Your task to perform on an android device: See recent photos Image 0: 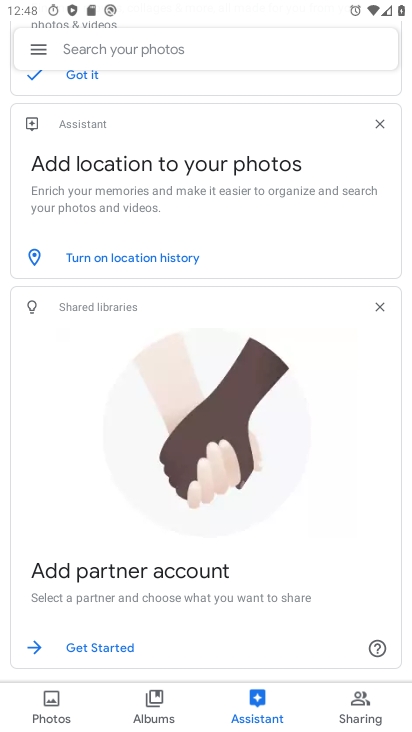
Step 0: press home button
Your task to perform on an android device: See recent photos Image 1: 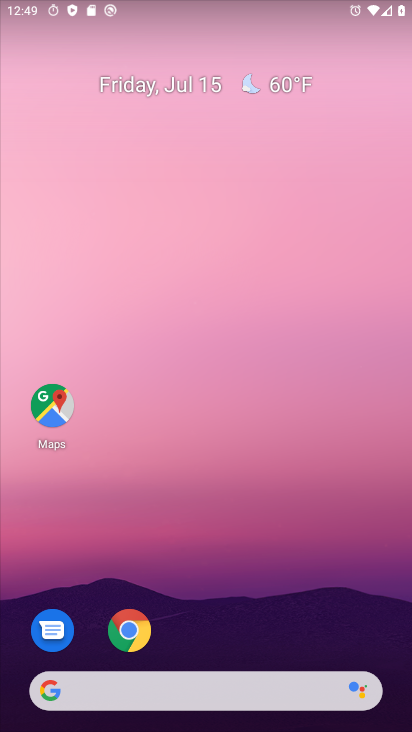
Step 1: drag from (202, 616) to (202, 208)
Your task to perform on an android device: See recent photos Image 2: 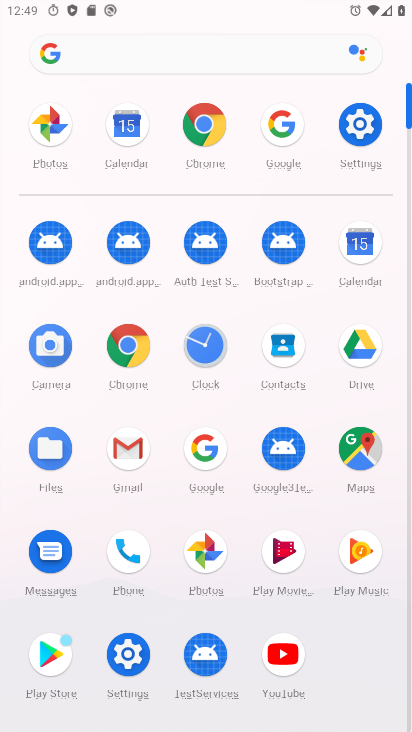
Step 2: click (203, 588)
Your task to perform on an android device: See recent photos Image 3: 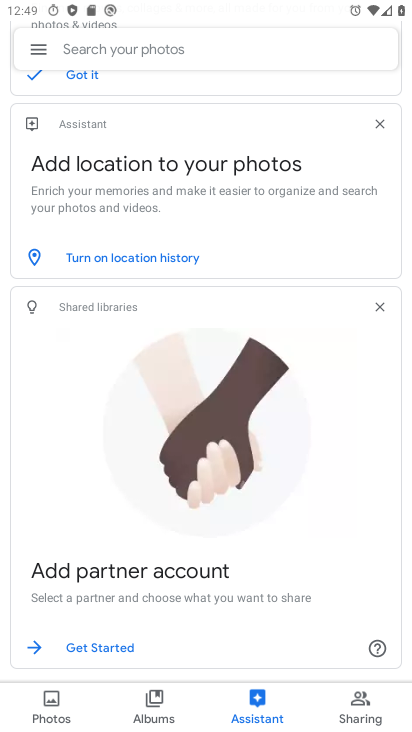
Step 3: click (48, 709)
Your task to perform on an android device: See recent photos Image 4: 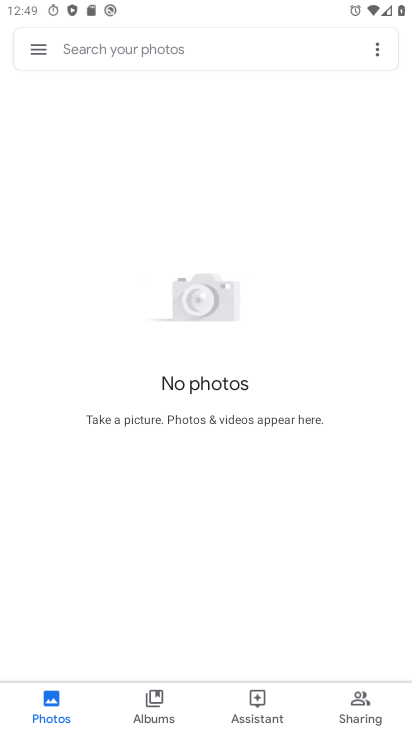
Step 4: task complete